Your task to perform on an android device: Search for lg ultragear on newegg, select the first entry, add it to the cart, then select checkout. Image 0: 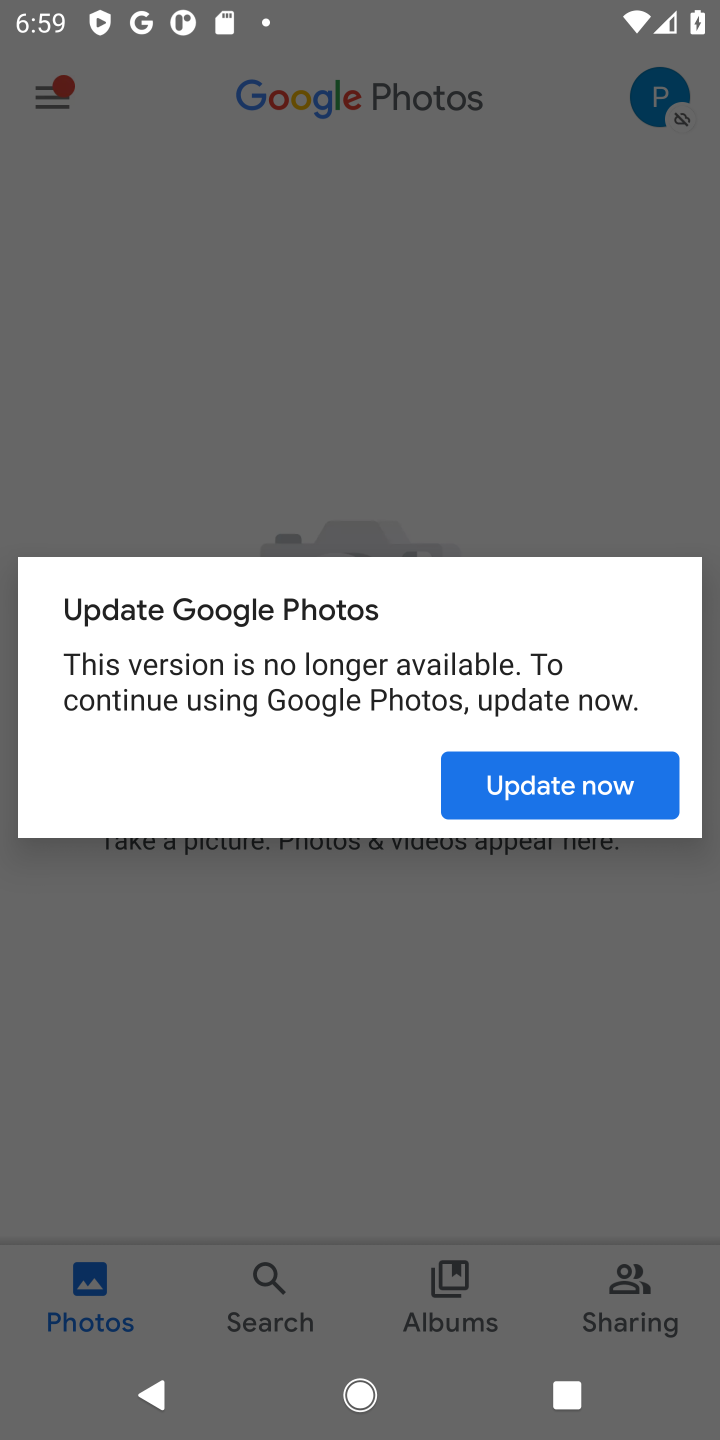
Step 0: press home button
Your task to perform on an android device: Search for lg ultragear on newegg, select the first entry, add it to the cart, then select checkout. Image 1: 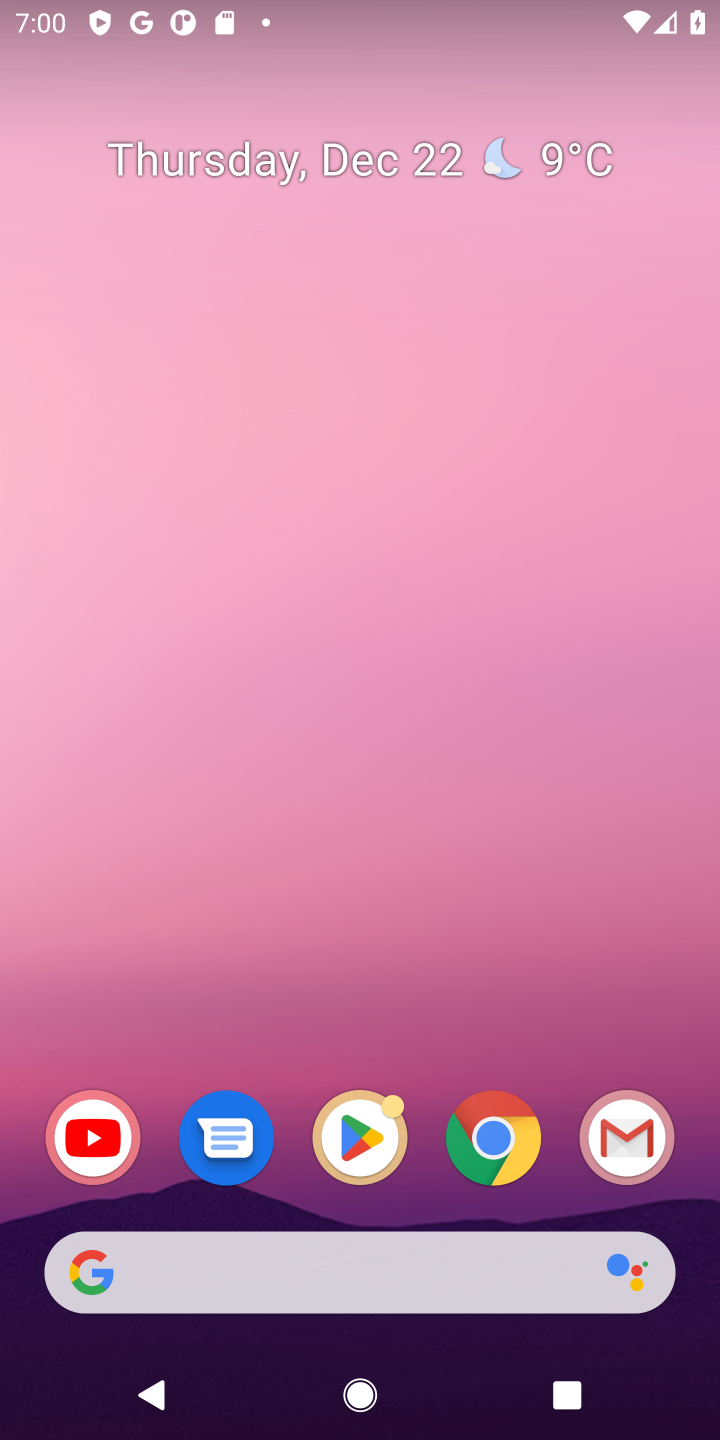
Step 1: click (493, 1136)
Your task to perform on an android device: Search for lg ultragear on newegg, select the first entry, add it to the cart, then select checkout. Image 2: 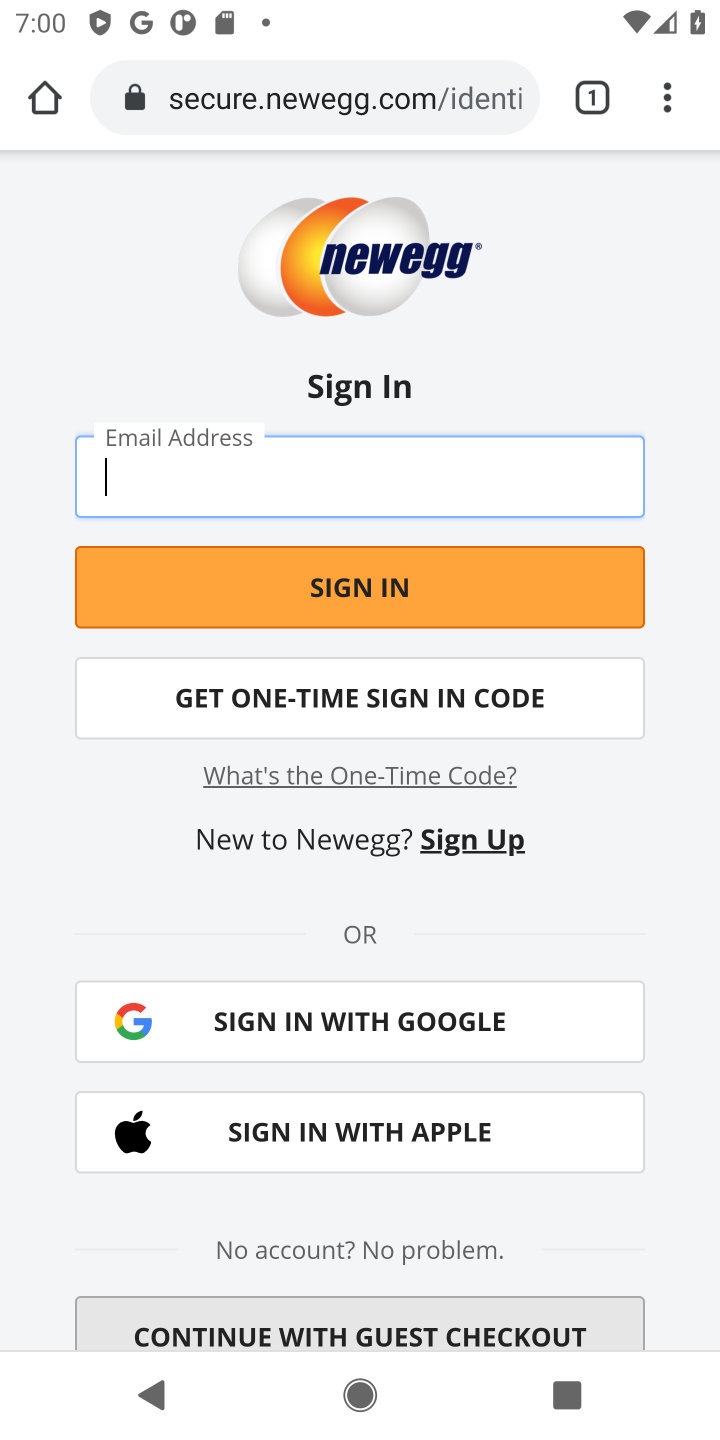
Step 2: press back button
Your task to perform on an android device: Search for lg ultragear on newegg, select the first entry, add it to the cart, then select checkout. Image 3: 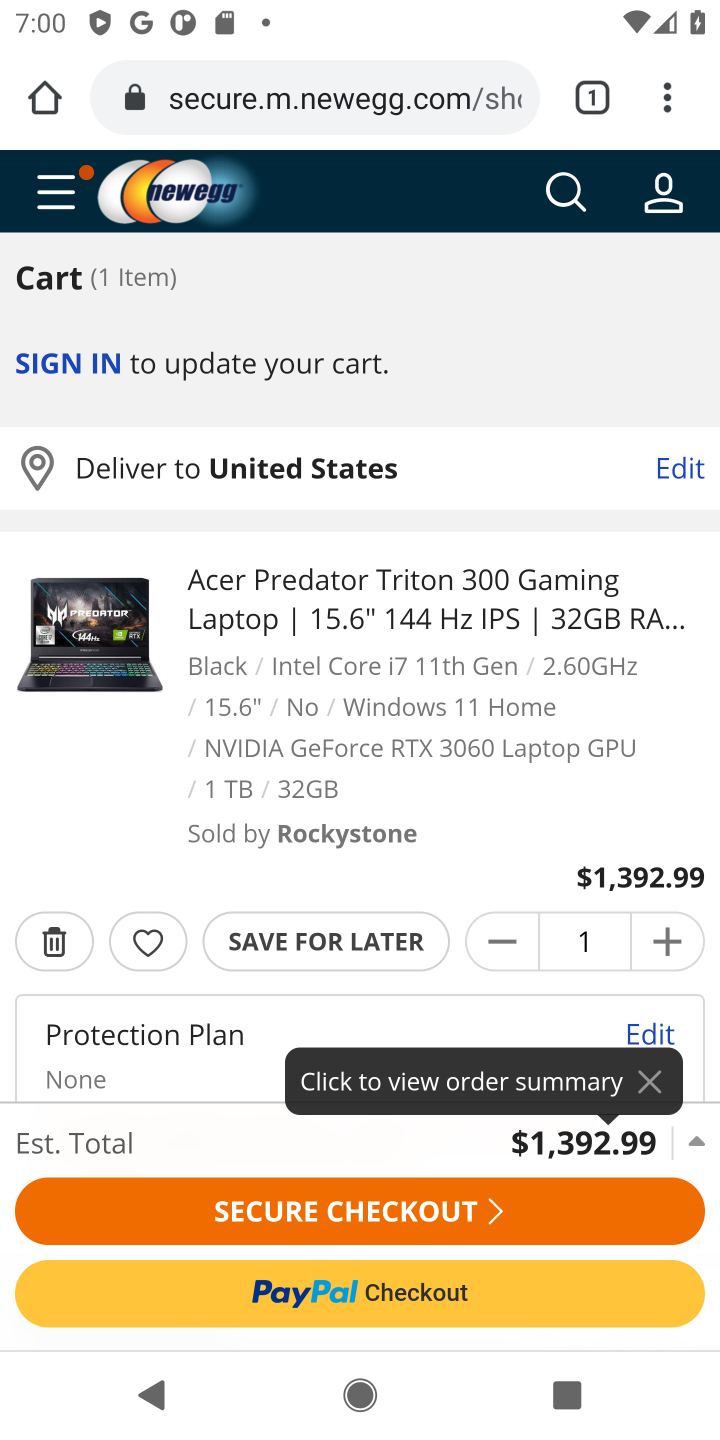
Step 3: click (555, 199)
Your task to perform on an android device: Search for lg ultragear on newegg, select the first entry, add it to the cart, then select checkout. Image 4: 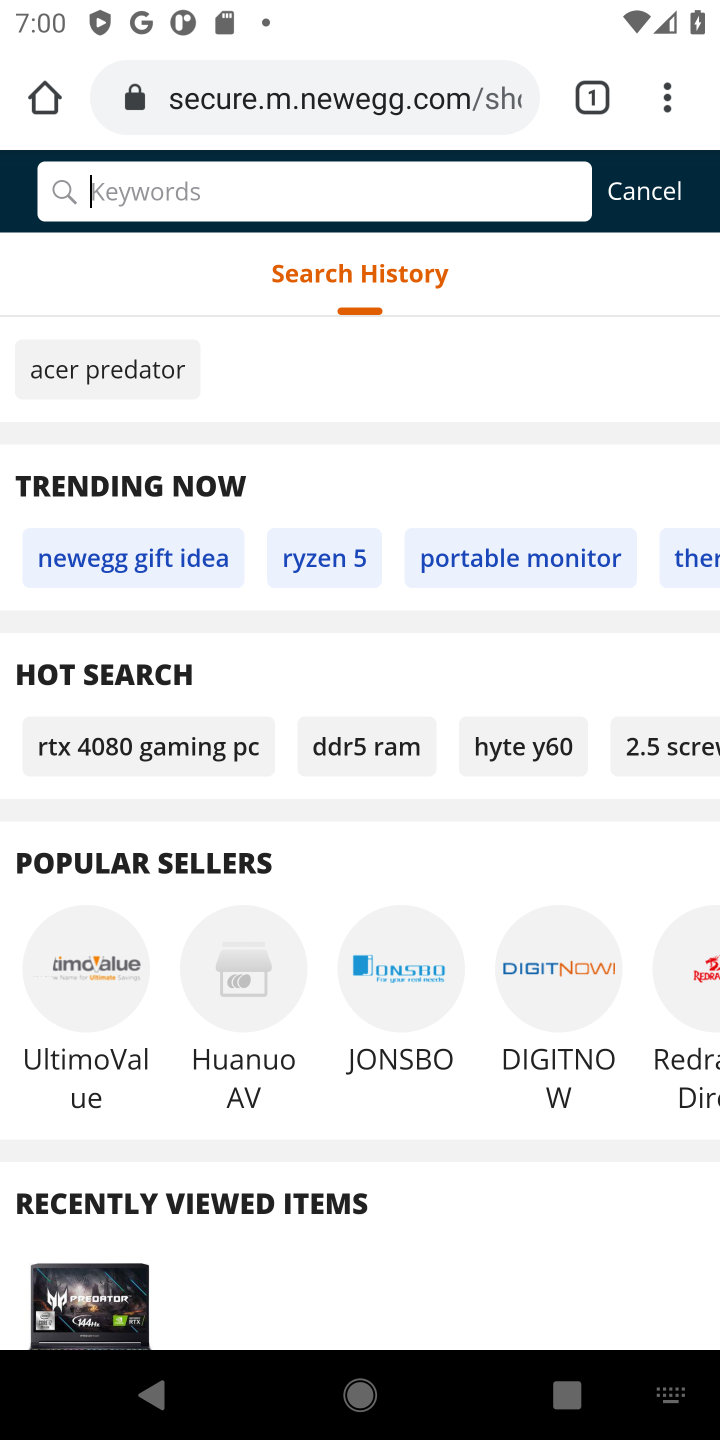
Step 4: press enter
Your task to perform on an android device: Search for lg ultragear on newegg, select the first entry, add it to the cart, then select checkout. Image 5: 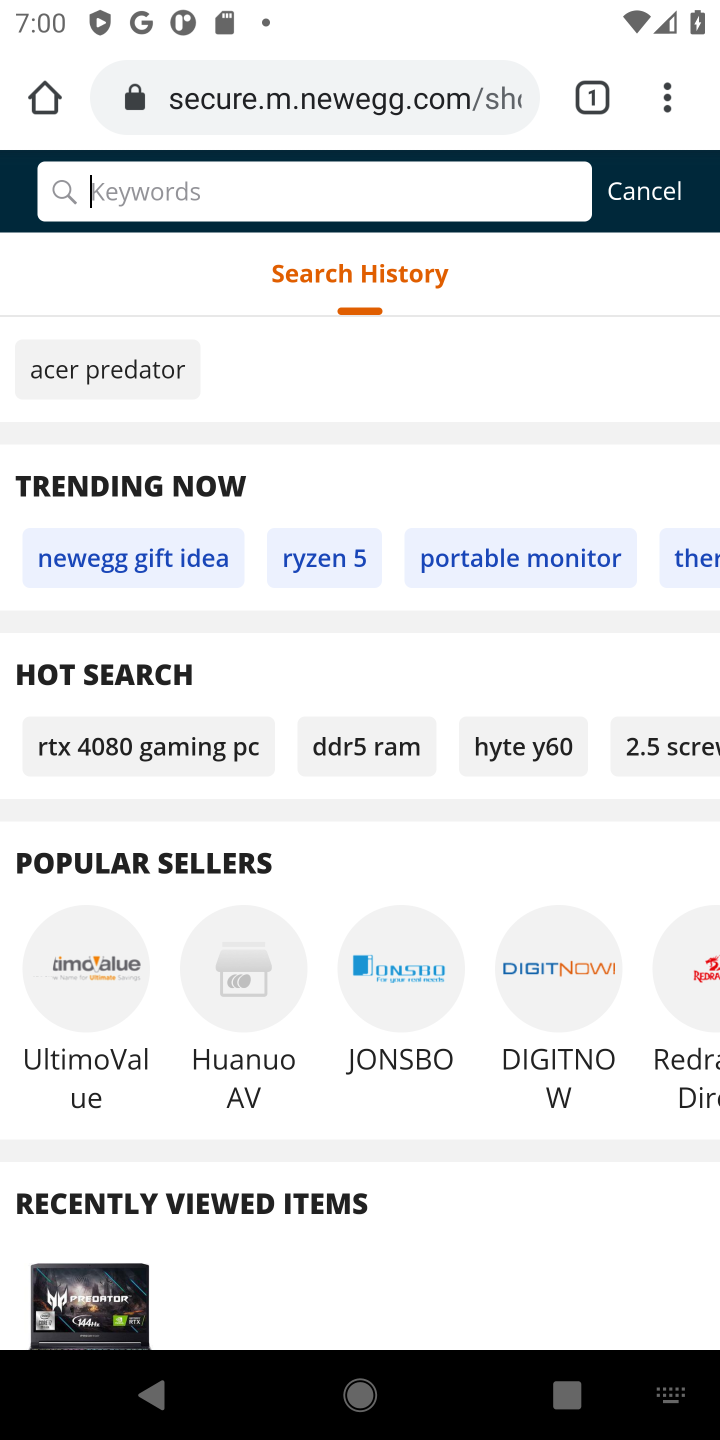
Step 5: type "lg ultragear"
Your task to perform on an android device: Search for lg ultragear on newegg, select the first entry, add it to the cart, then select checkout. Image 6: 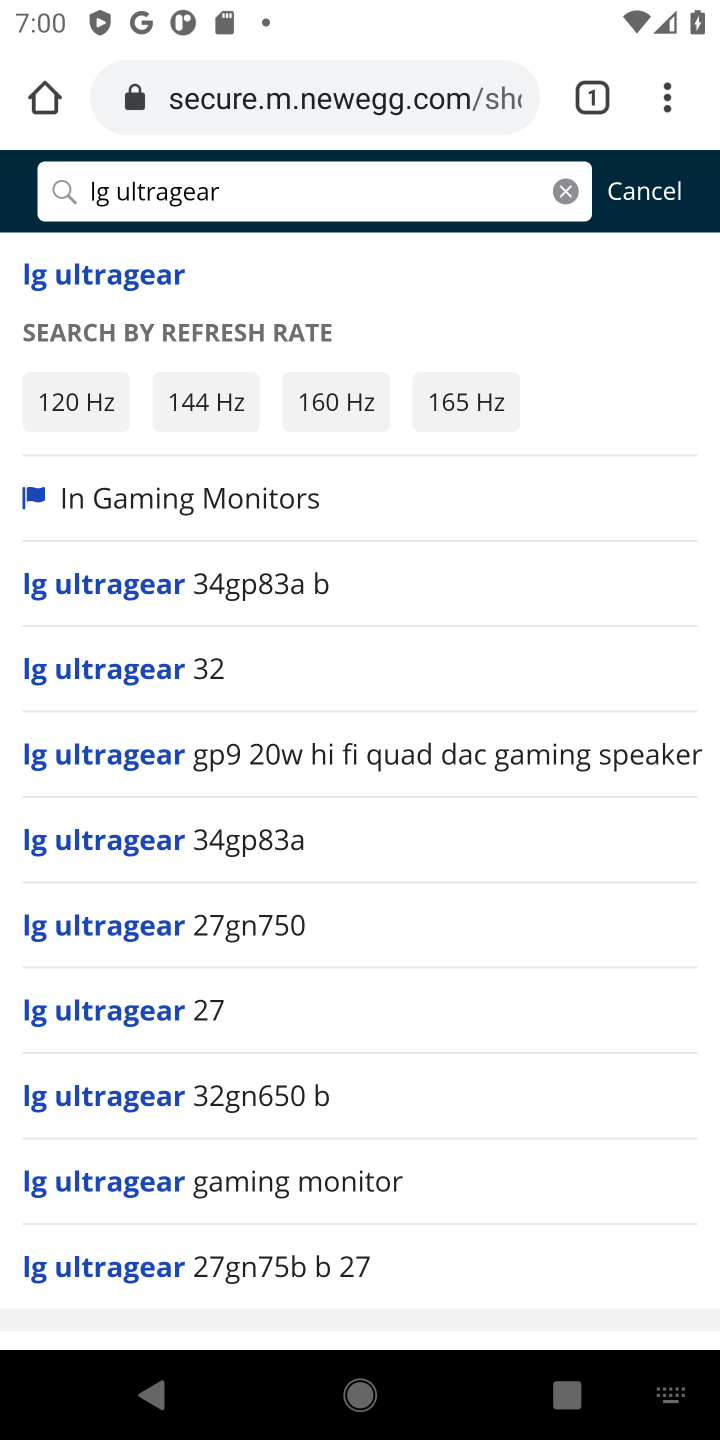
Step 6: click (144, 285)
Your task to perform on an android device: Search for lg ultragear on newegg, select the first entry, add it to the cart, then select checkout. Image 7: 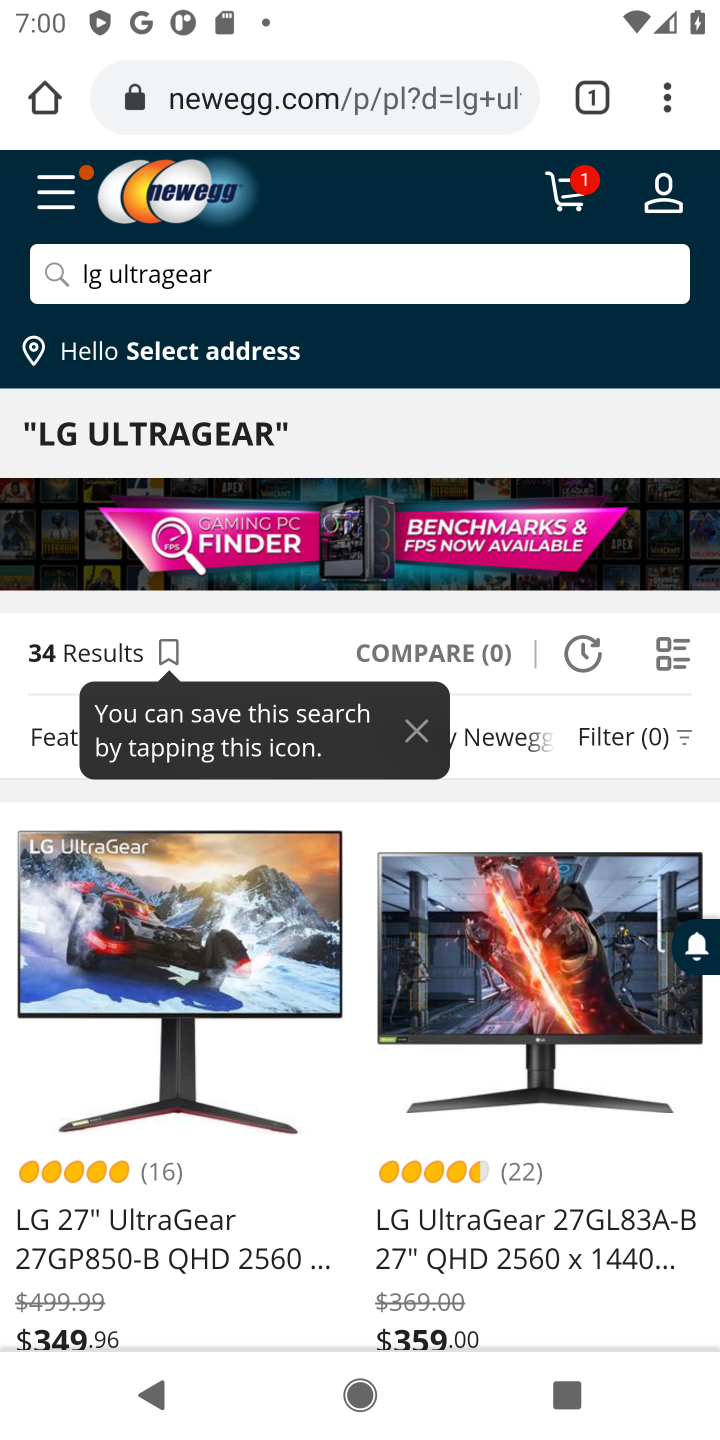
Step 7: click (172, 946)
Your task to perform on an android device: Search for lg ultragear on newegg, select the first entry, add it to the cart, then select checkout. Image 8: 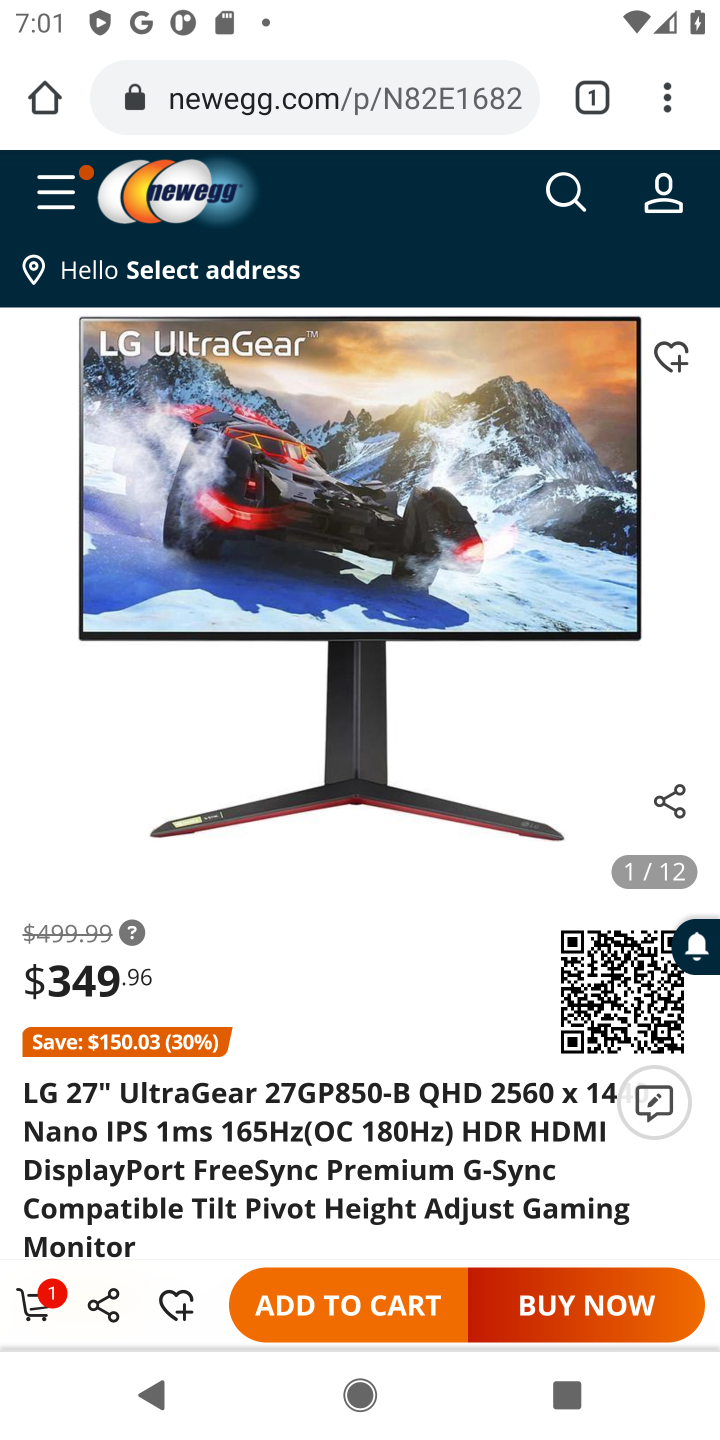
Step 8: click (324, 1303)
Your task to perform on an android device: Search for lg ultragear on newegg, select the first entry, add it to the cart, then select checkout. Image 9: 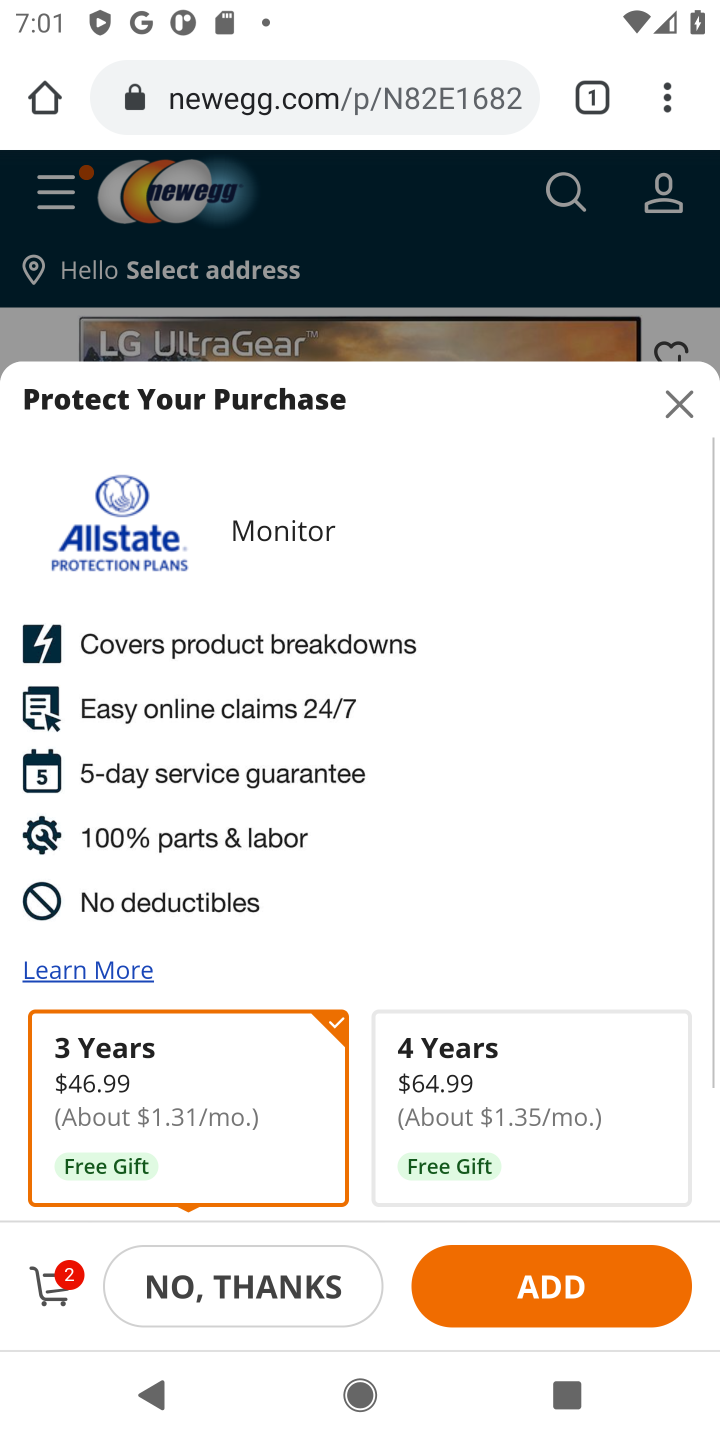
Step 9: click (59, 1288)
Your task to perform on an android device: Search for lg ultragear on newegg, select the first entry, add it to the cart, then select checkout. Image 10: 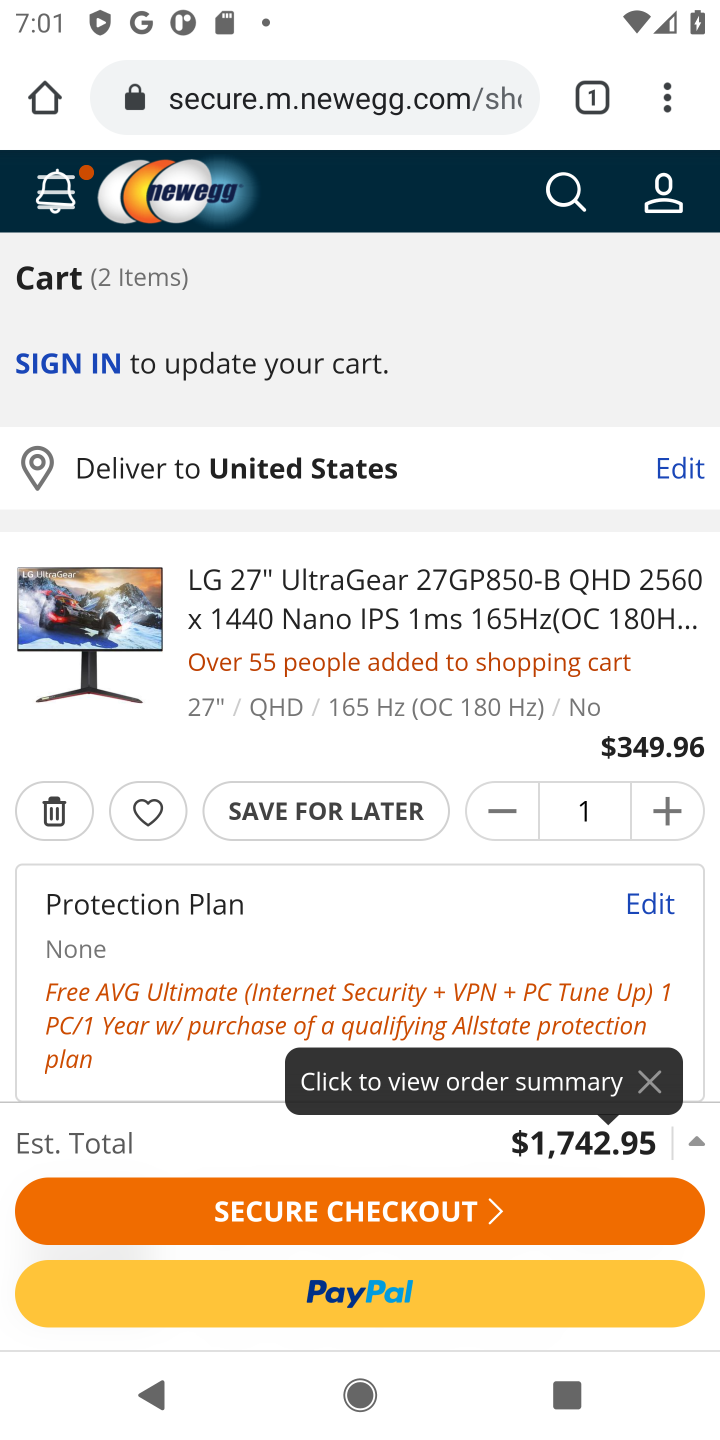
Step 10: click (379, 1202)
Your task to perform on an android device: Search for lg ultragear on newegg, select the first entry, add it to the cart, then select checkout. Image 11: 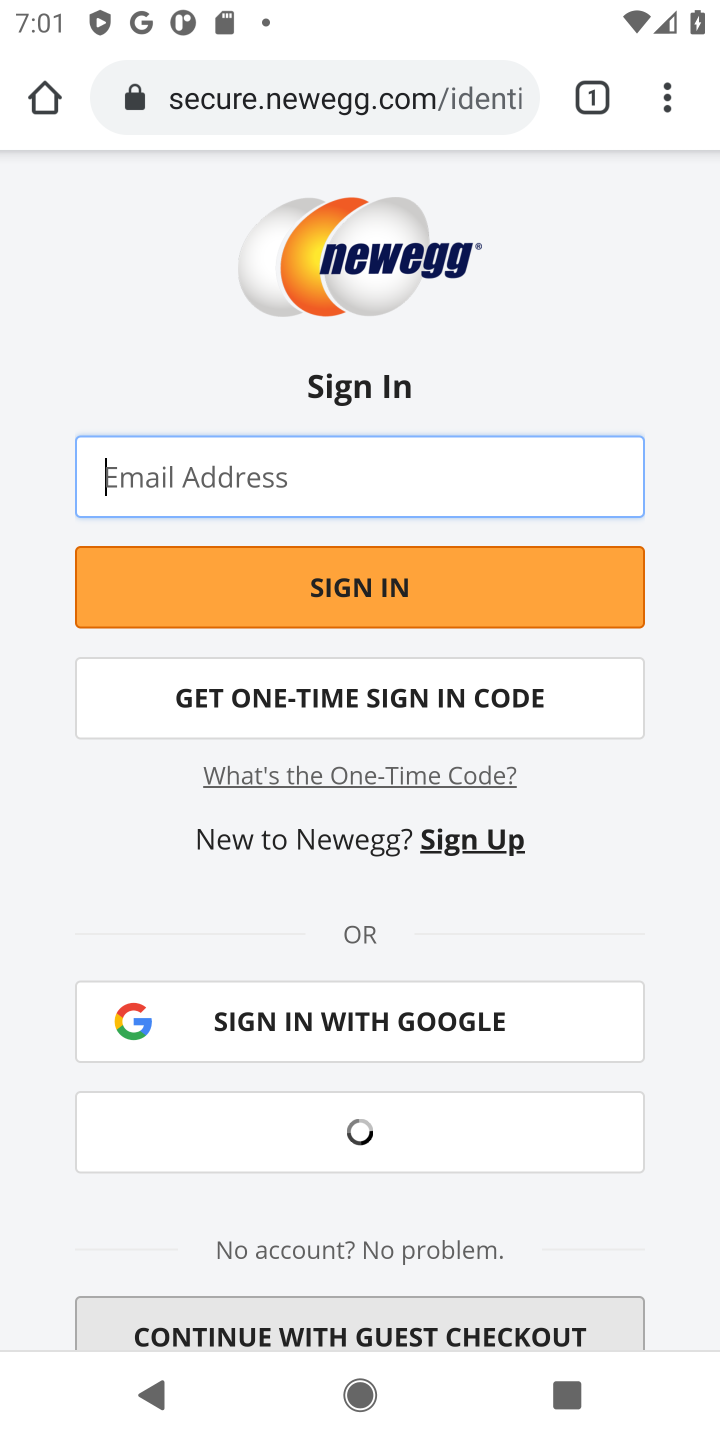
Step 11: task complete